Your task to perform on an android device: What is the speed of a plane? Image 0: 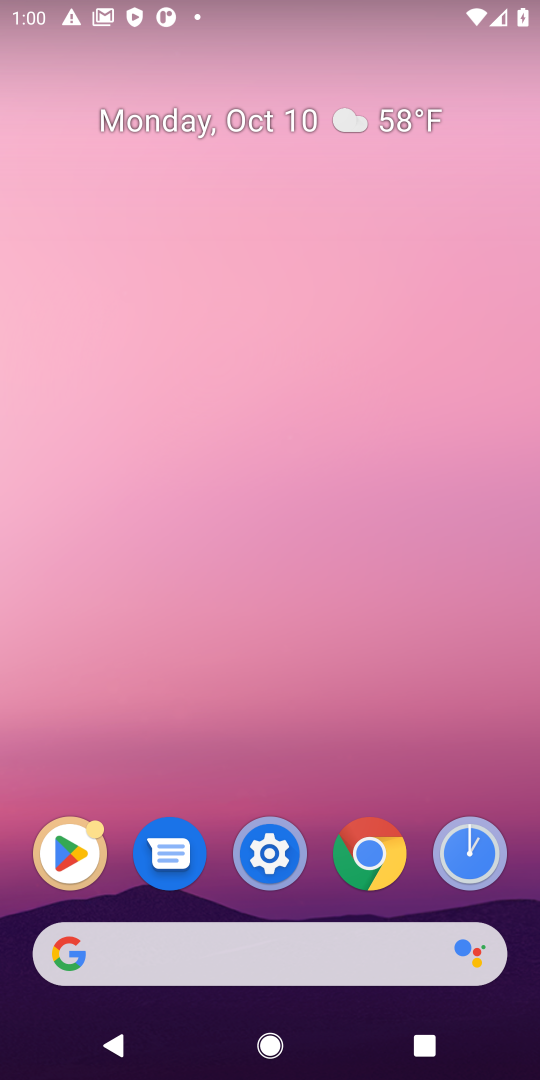
Step 0: click (353, 848)
Your task to perform on an android device: What is the speed of a plane? Image 1: 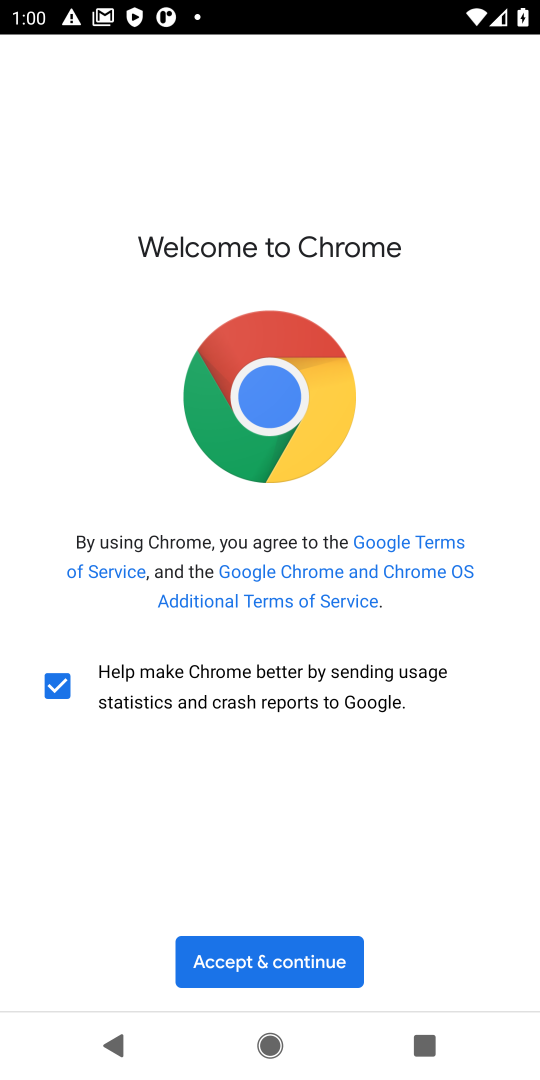
Step 1: click (326, 938)
Your task to perform on an android device: What is the speed of a plane? Image 2: 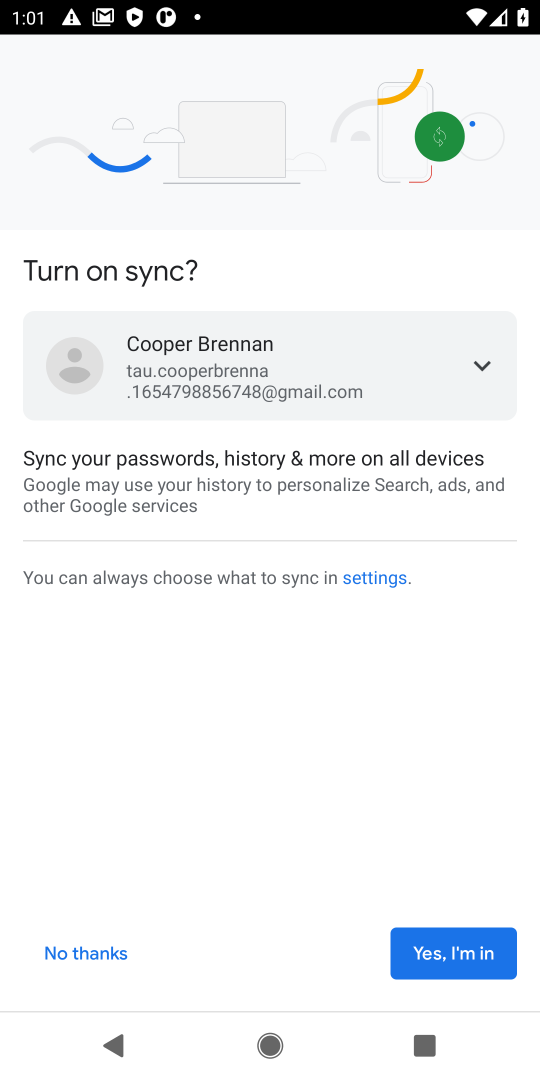
Step 2: click (442, 957)
Your task to perform on an android device: What is the speed of a plane? Image 3: 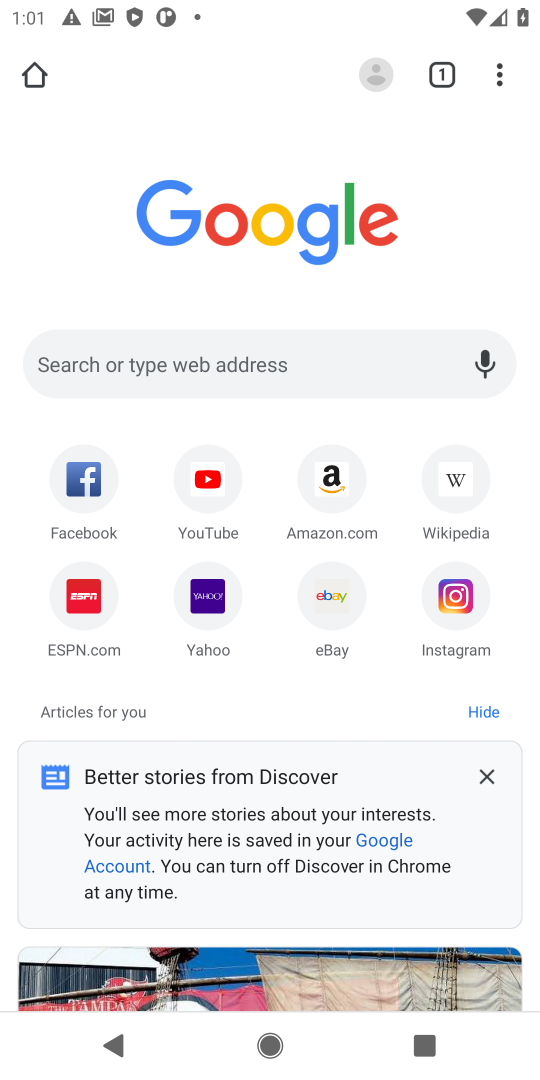
Step 3: click (195, 381)
Your task to perform on an android device: What is the speed of a plane? Image 4: 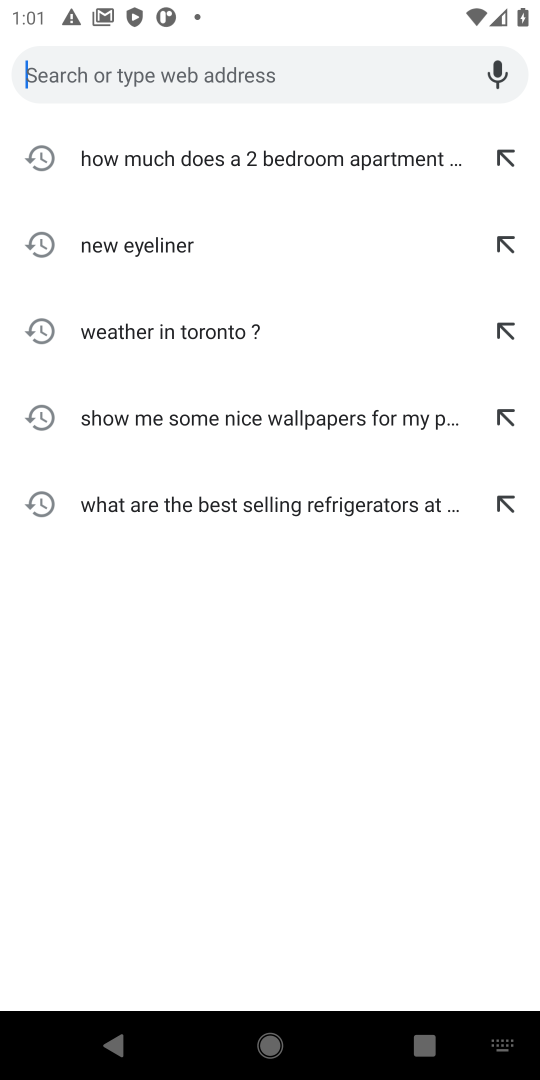
Step 4: type "What is the speed of a plane?"
Your task to perform on an android device: What is the speed of a plane? Image 5: 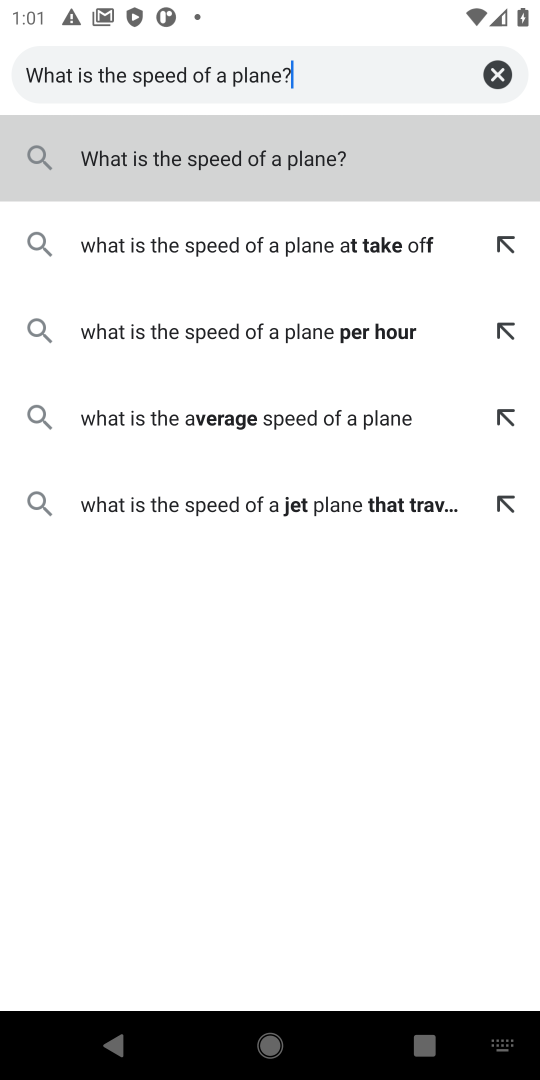
Step 5: click (391, 159)
Your task to perform on an android device: What is the speed of a plane? Image 6: 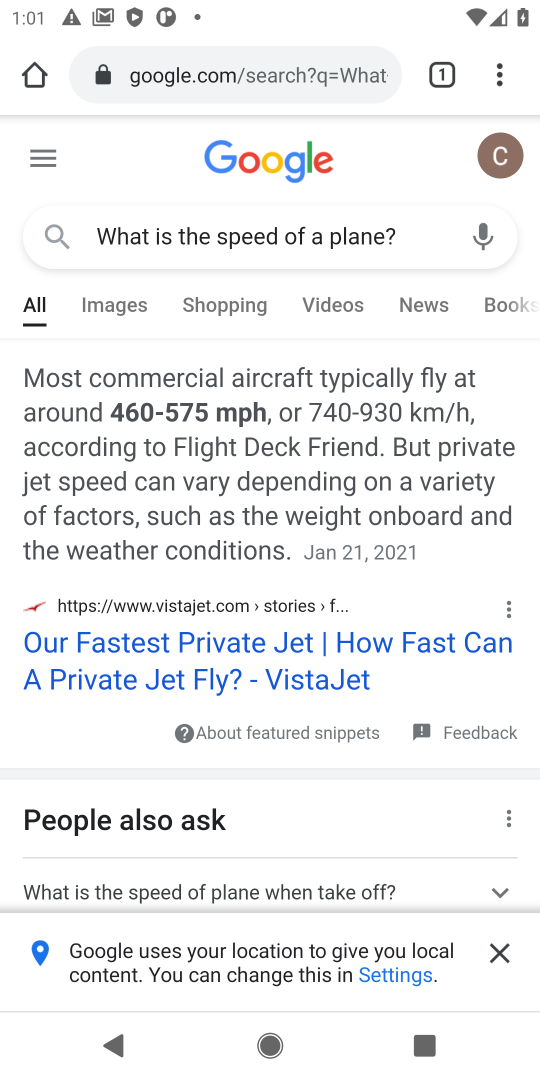
Step 6: task complete